Your task to perform on an android device: Show me the best rated coffee table on Ikea Image 0: 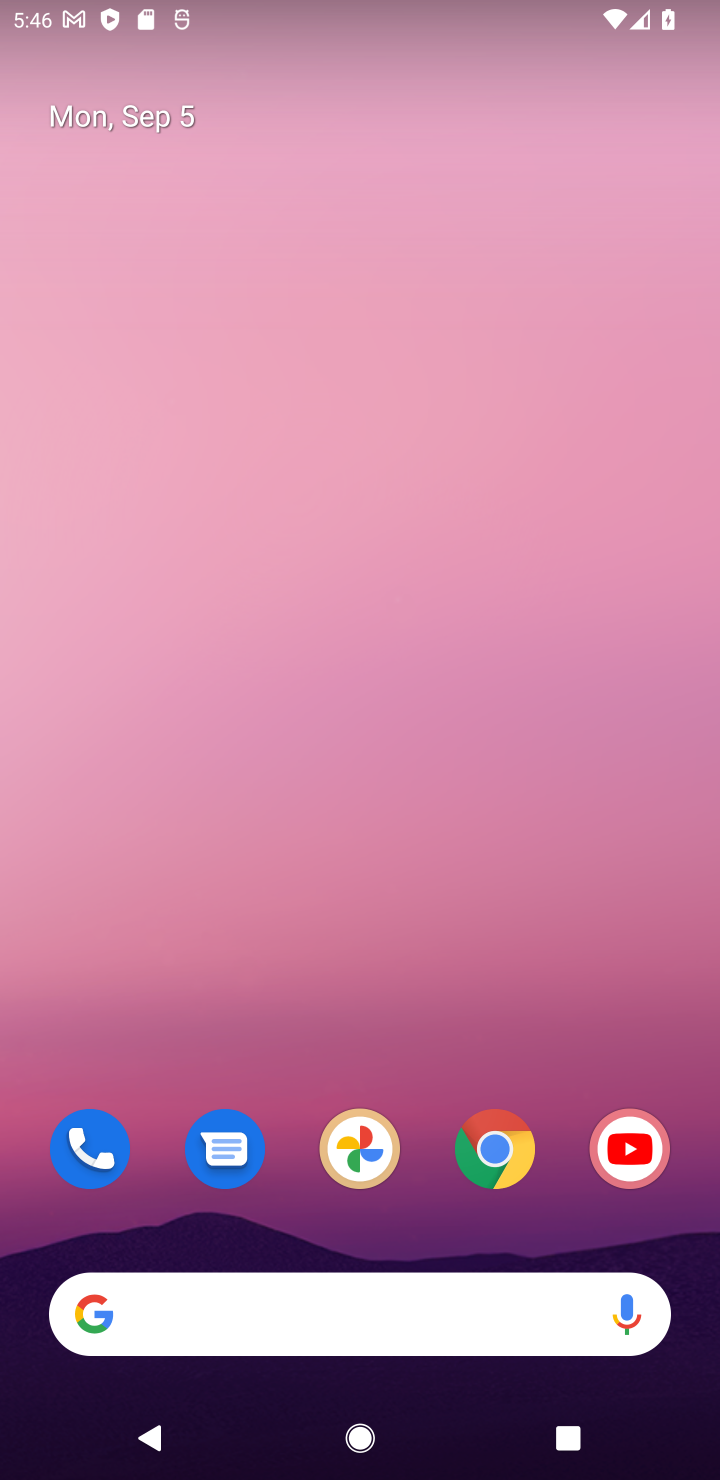
Step 0: click (496, 1157)
Your task to perform on an android device: Show me the best rated coffee table on Ikea Image 1: 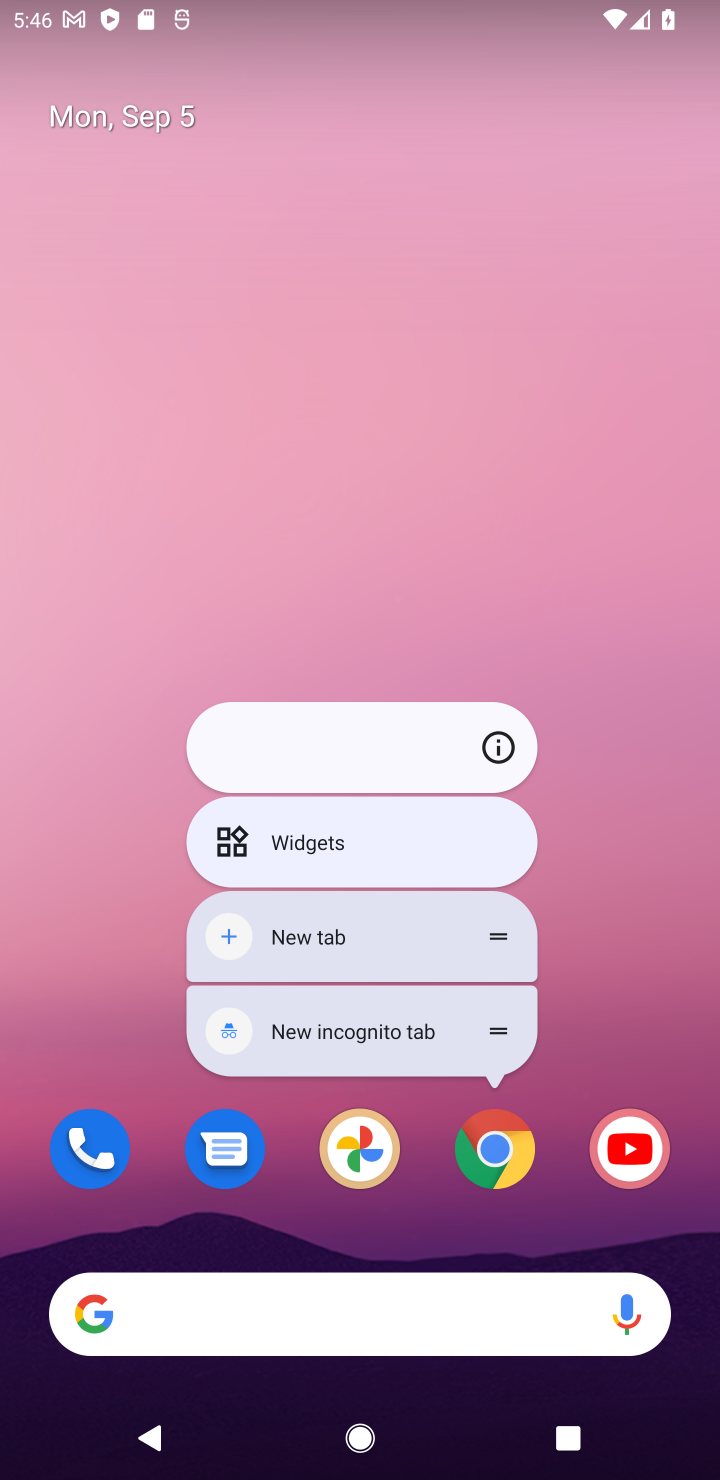
Step 1: click (516, 1162)
Your task to perform on an android device: Show me the best rated coffee table on Ikea Image 2: 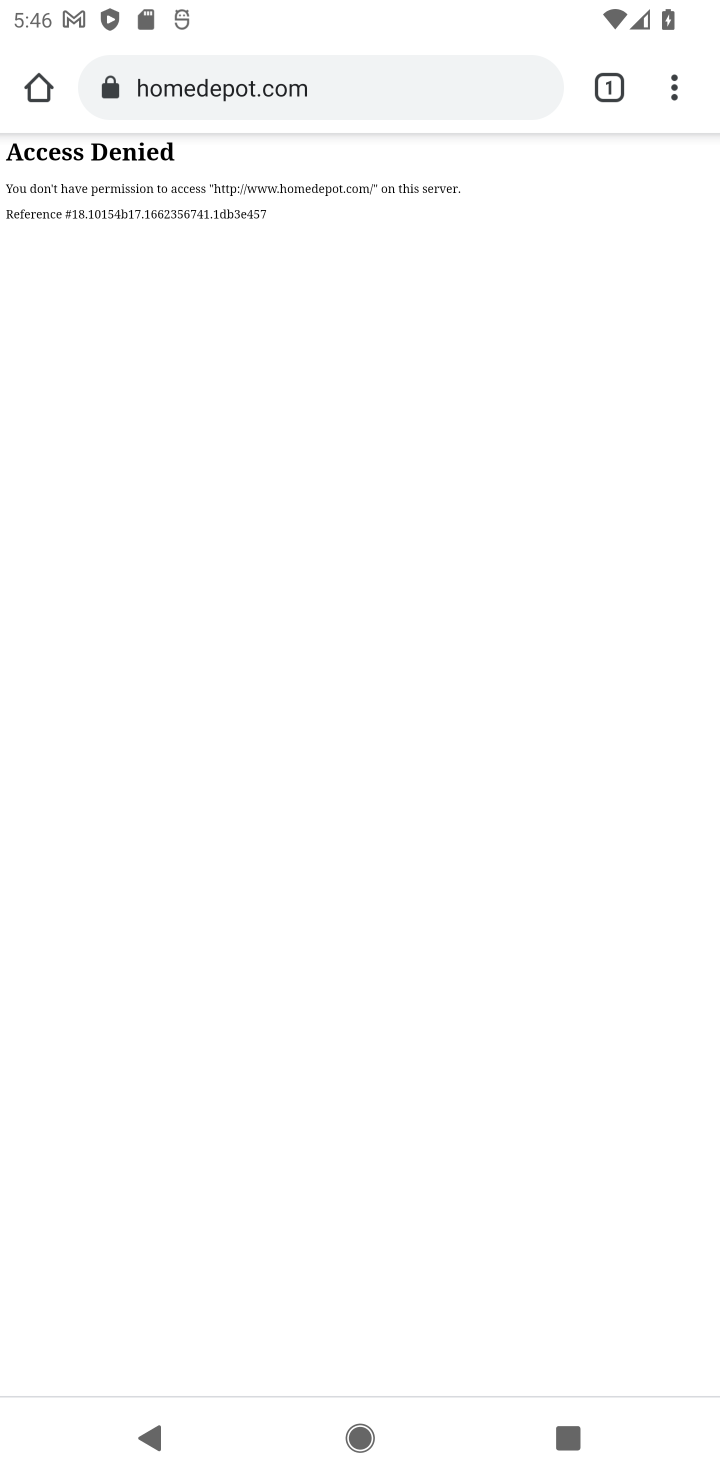
Step 2: click (376, 74)
Your task to perform on an android device: Show me the best rated coffee table on Ikea Image 3: 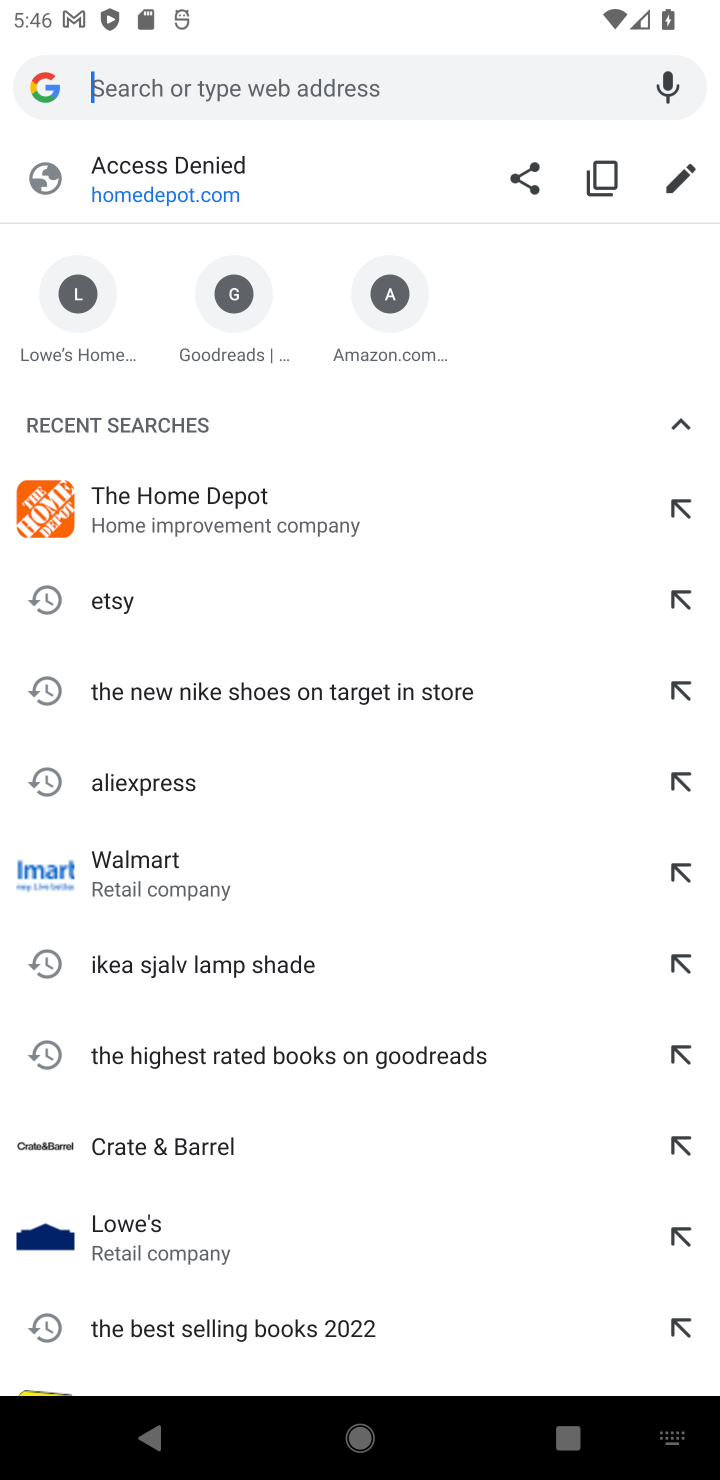
Step 3: type "Ikea"
Your task to perform on an android device: Show me the best rated coffee table on Ikea Image 4: 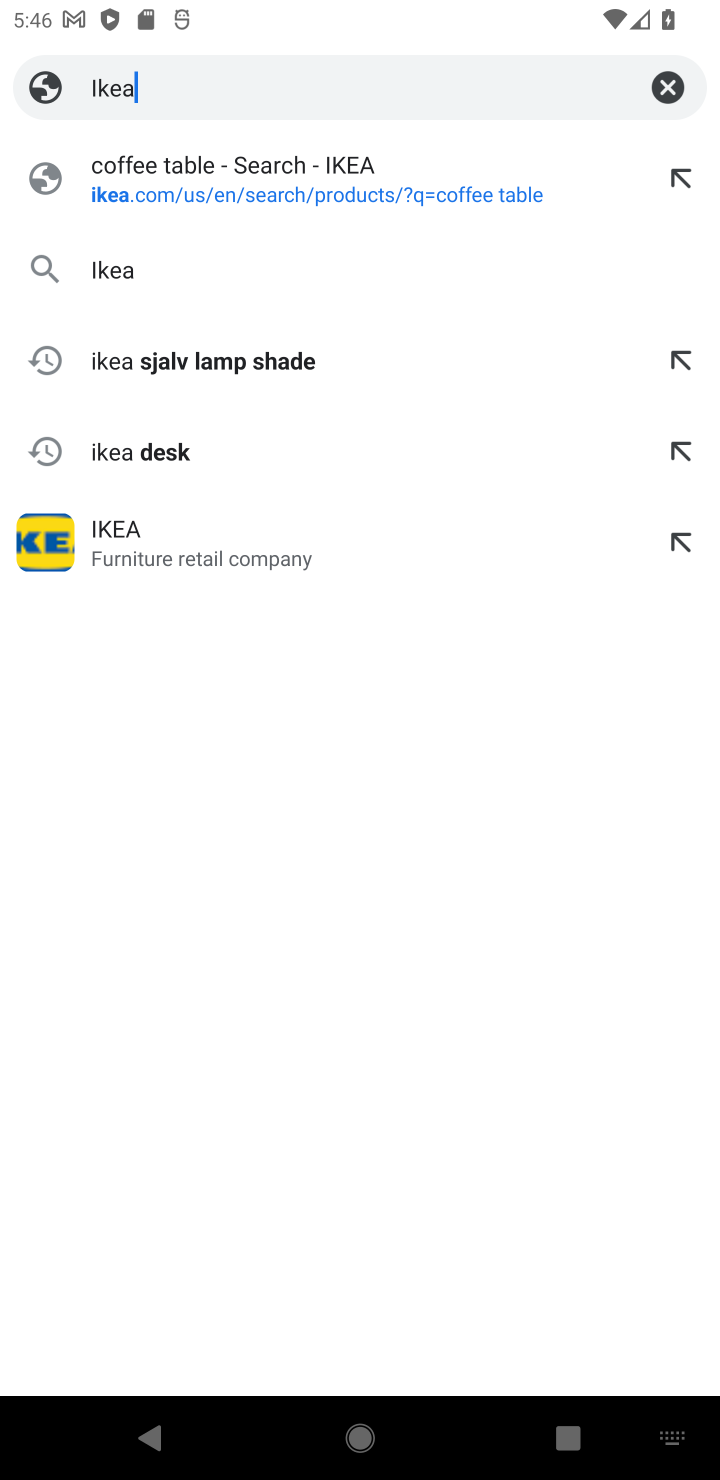
Step 4: click (129, 262)
Your task to perform on an android device: Show me the best rated coffee table on Ikea Image 5: 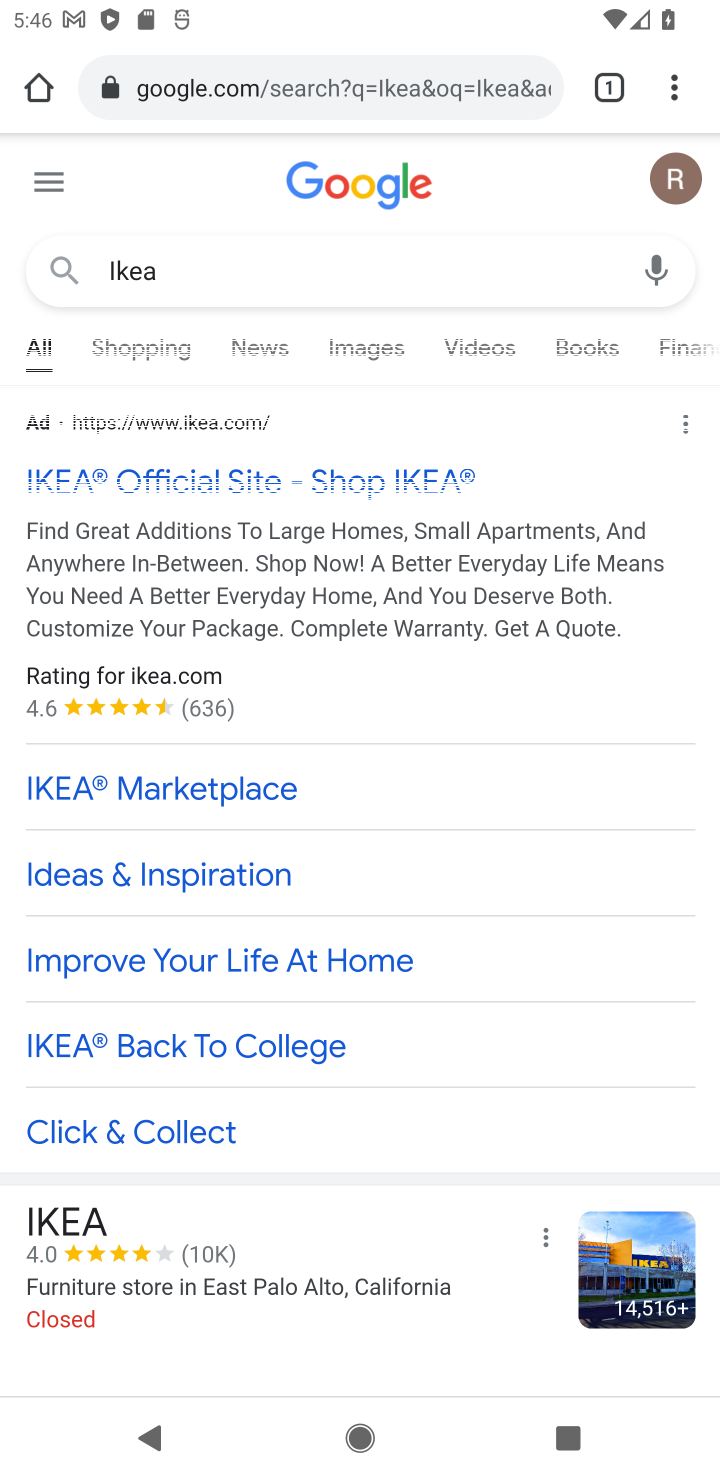
Step 5: click (153, 488)
Your task to perform on an android device: Show me the best rated coffee table on Ikea Image 6: 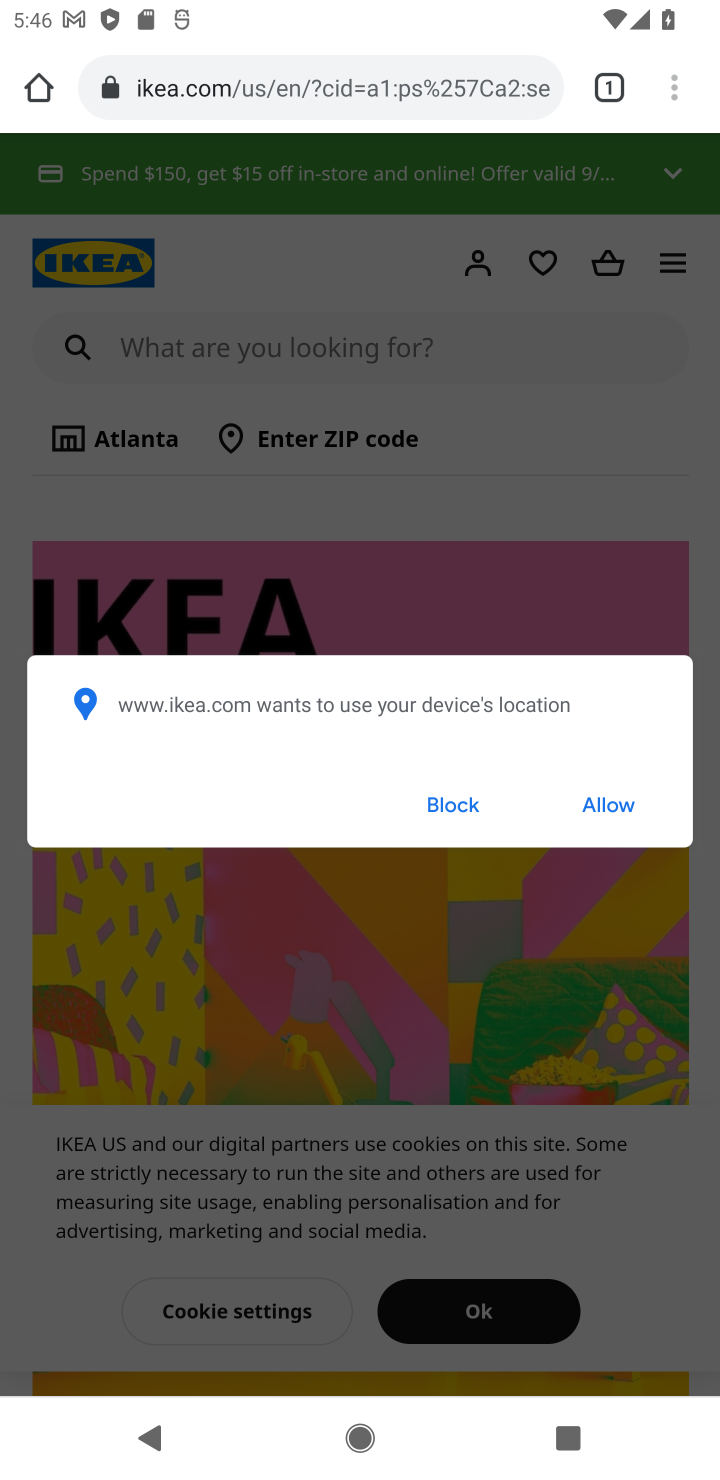
Step 6: click (595, 806)
Your task to perform on an android device: Show me the best rated coffee table on Ikea Image 7: 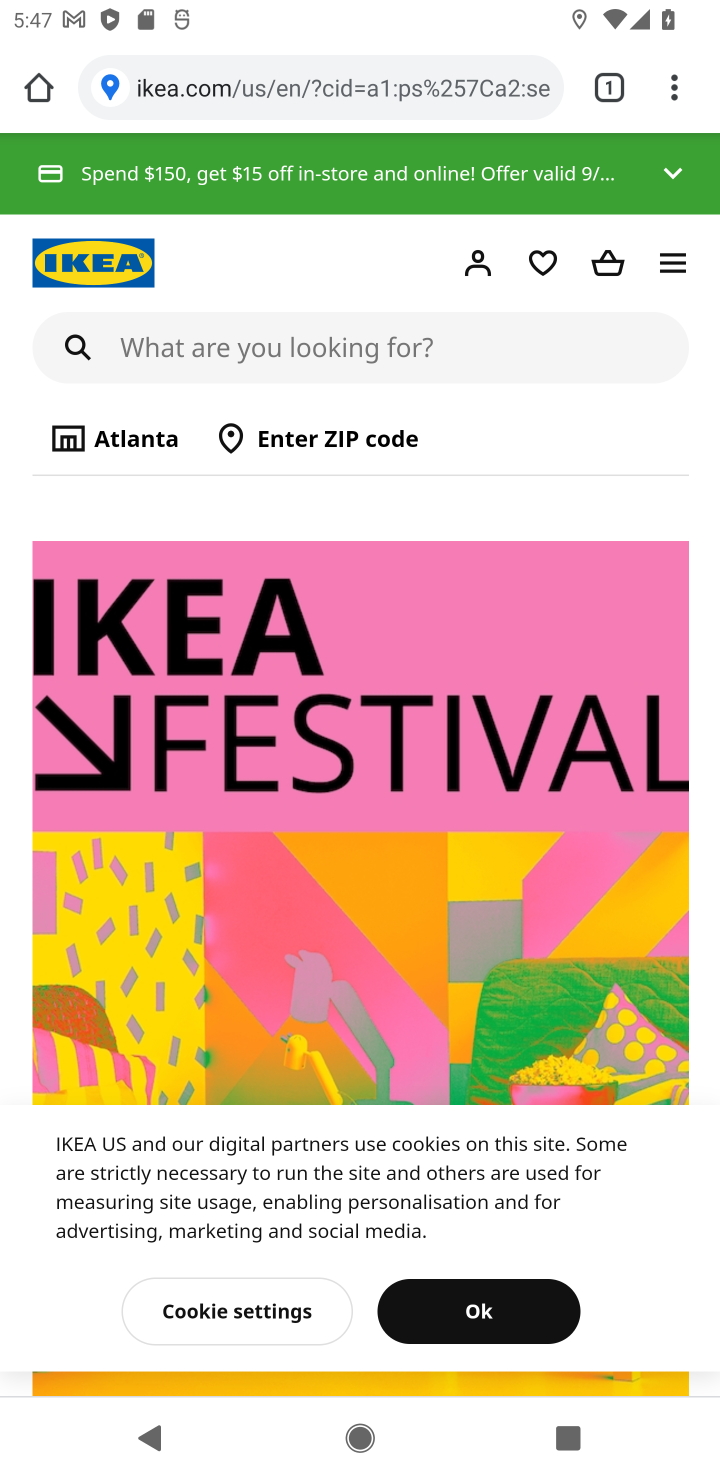
Step 7: click (449, 1309)
Your task to perform on an android device: Show me the best rated coffee table on Ikea Image 8: 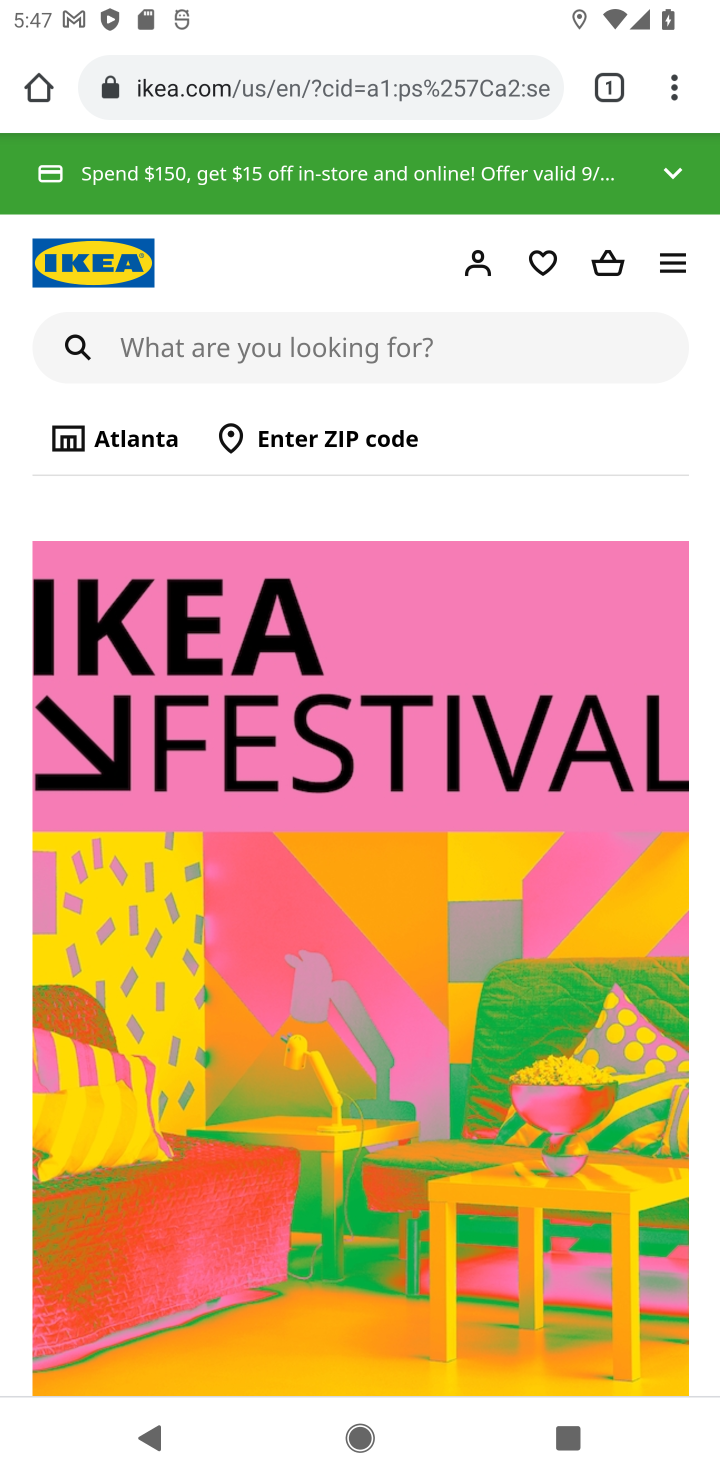
Step 8: drag from (372, 838) to (354, 174)
Your task to perform on an android device: Show me the best rated coffee table on Ikea Image 9: 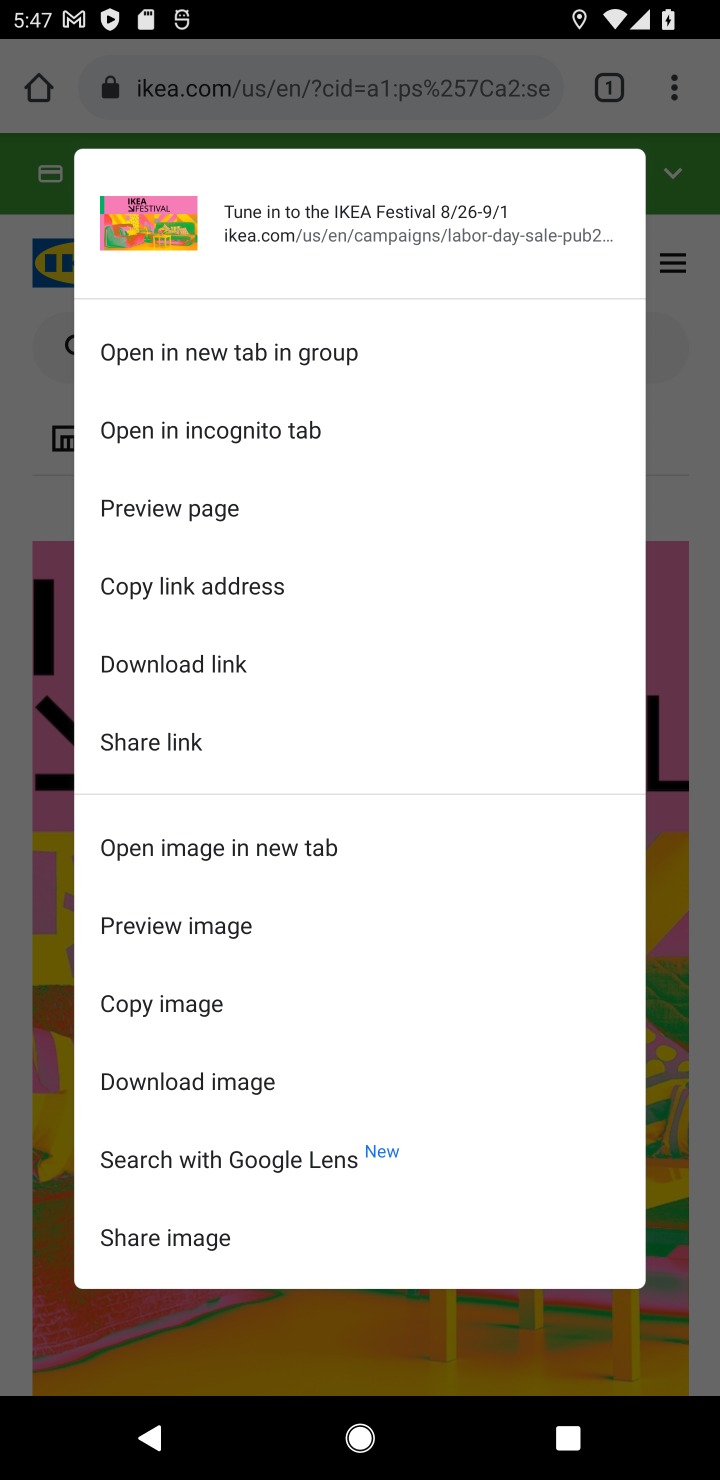
Step 9: click (699, 501)
Your task to perform on an android device: Show me the best rated coffee table on Ikea Image 10: 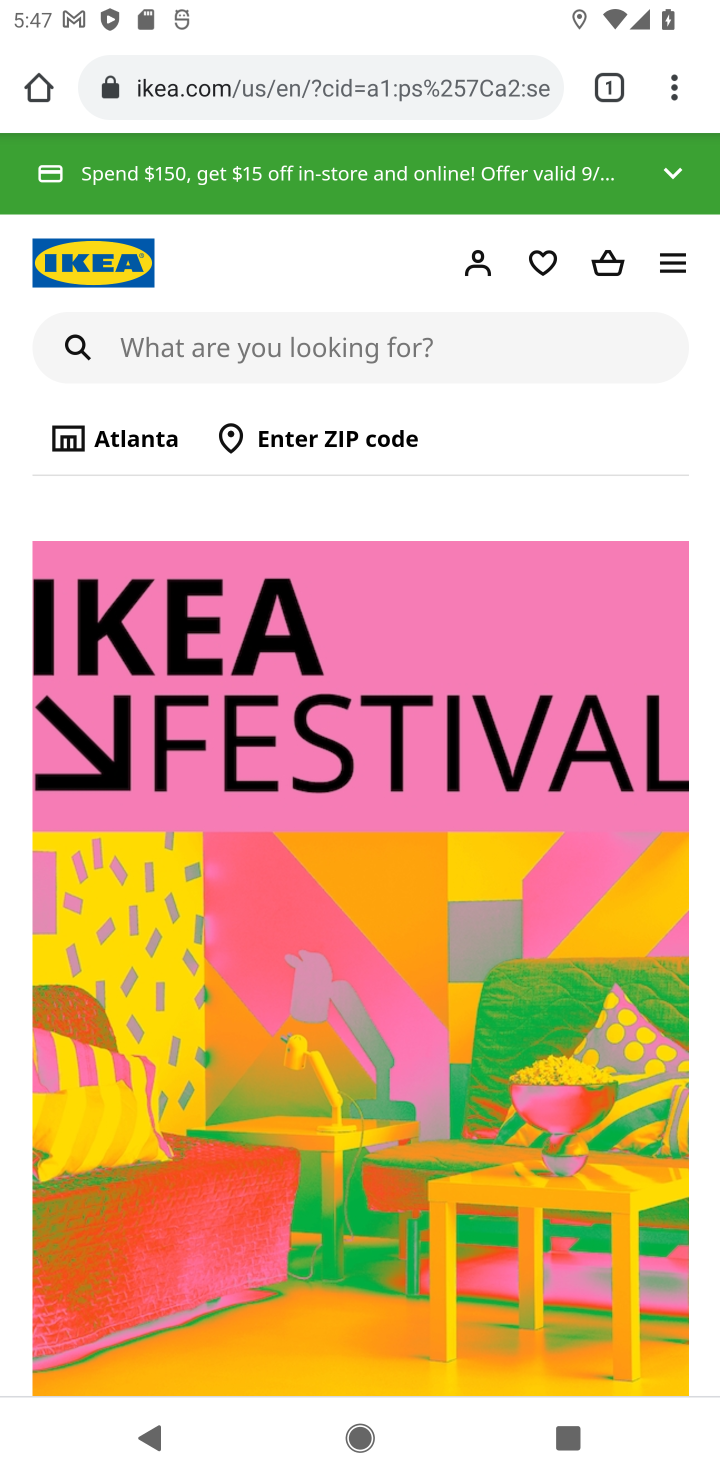
Step 10: click (212, 342)
Your task to perform on an android device: Show me the best rated coffee table on Ikea Image 11: 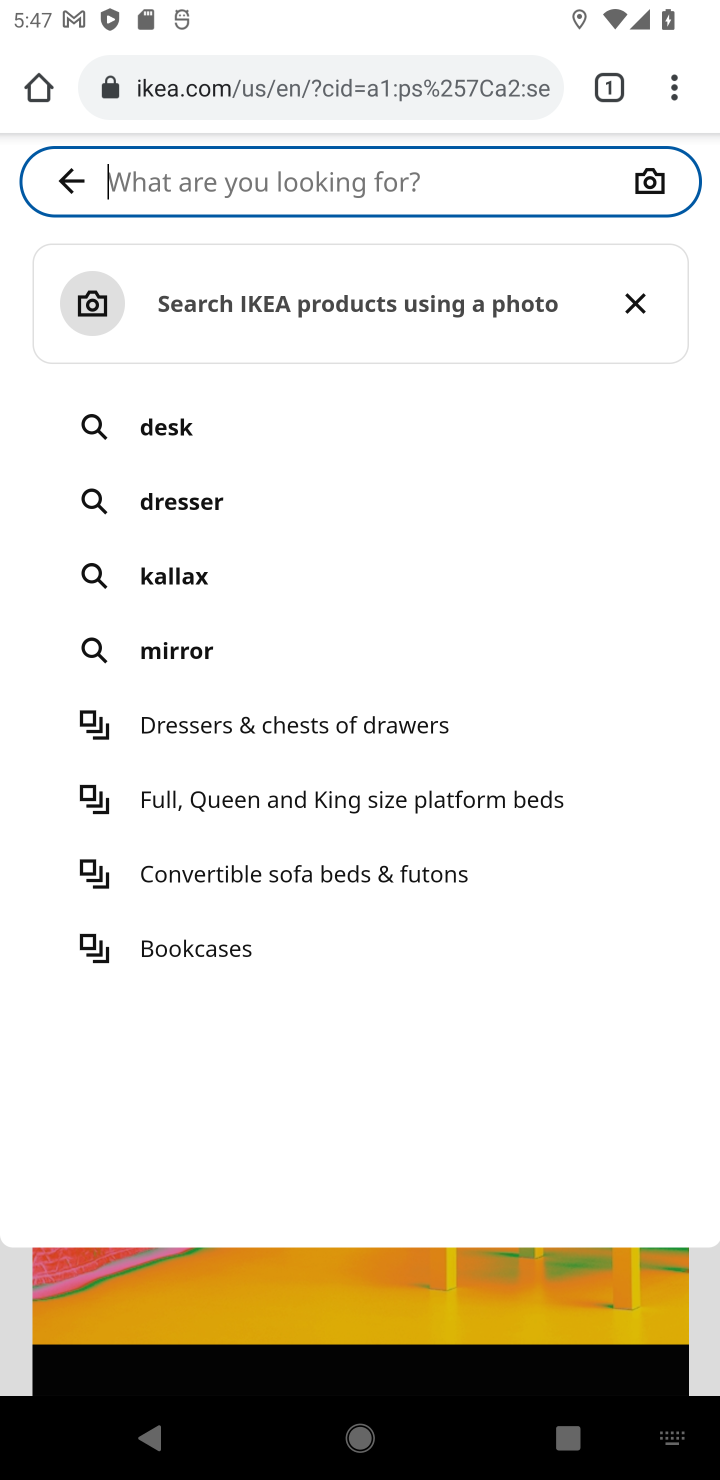
Step 11: type "coffee table"
Your task to perform on an android device: Show me the best rated coffee table on Ikea Image 12: 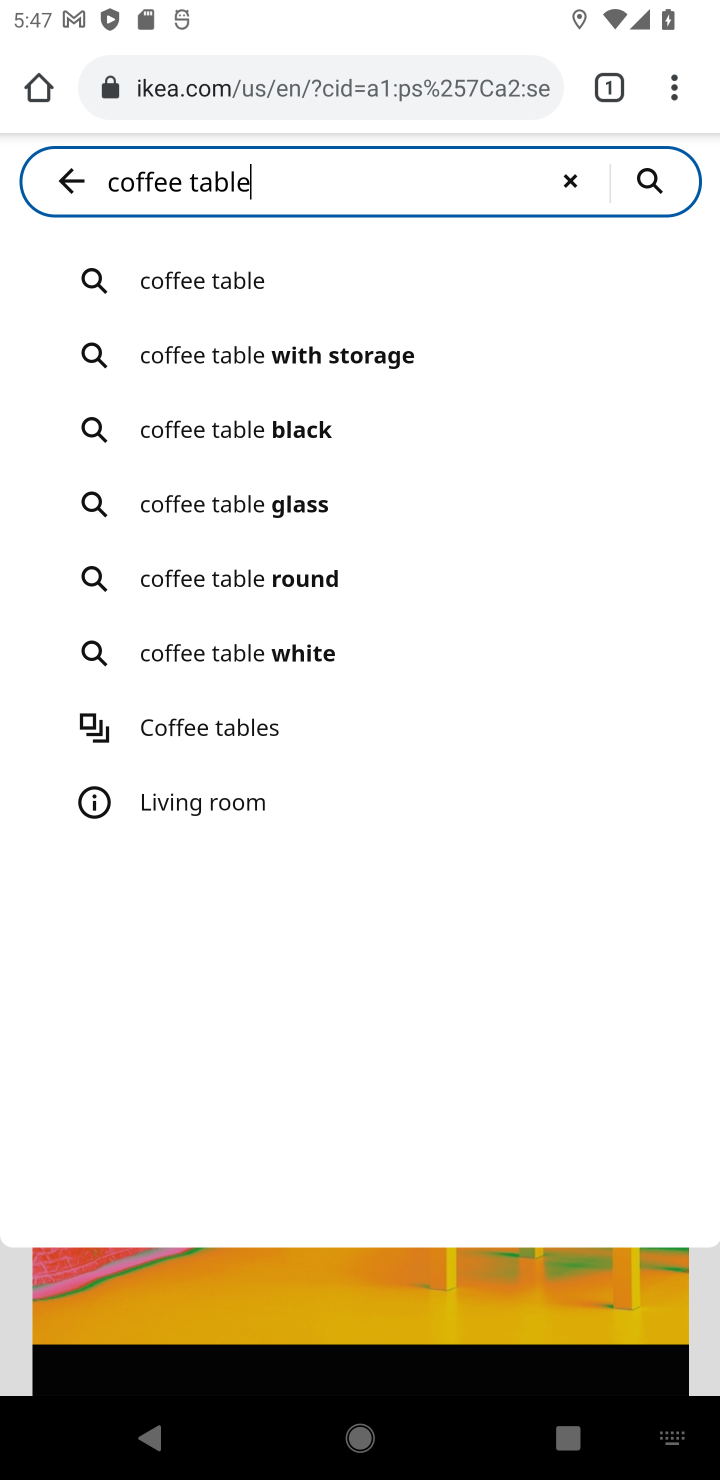
Step 12: click (217, 282)
Your task to perform on an android device: Show me the best rated coffee table on Ikea Image 13: 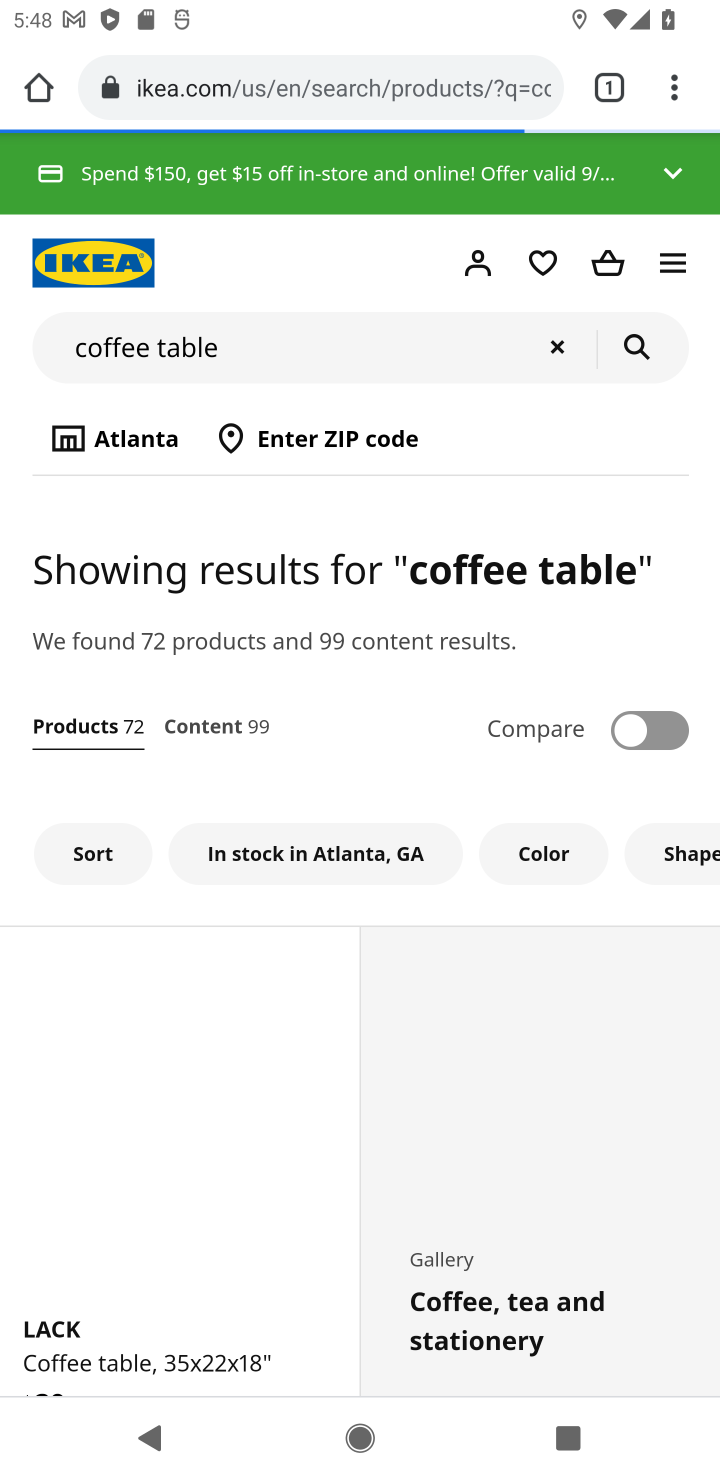
Step 13: task complete